Your task to perform on an android device: uninstall "Google Sheets" Image 0: 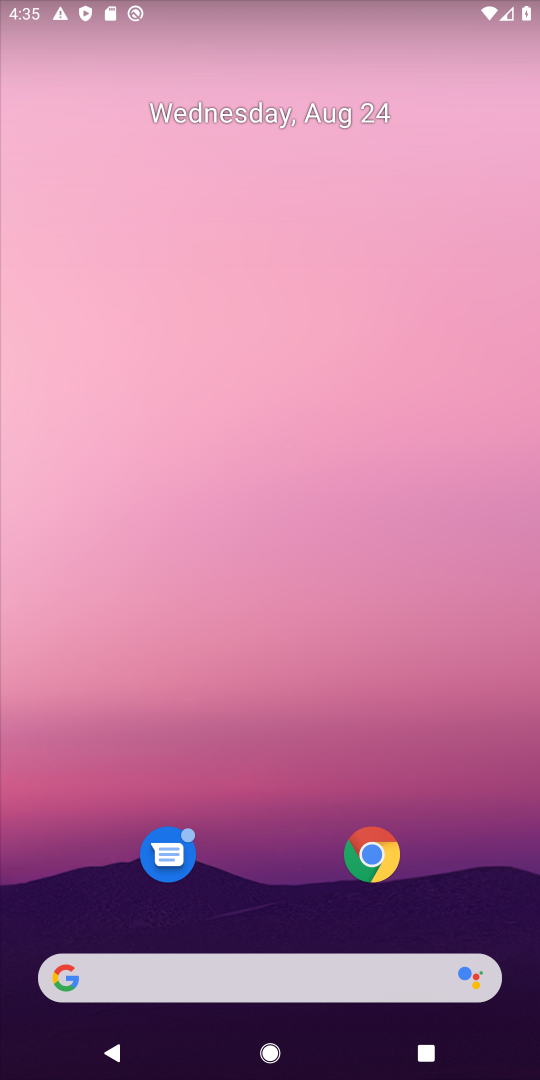
Step 0: drag from (274, 835) to (246, 0)
Your task to perform on an android device: uninstall "Google Sheets" Image 1: 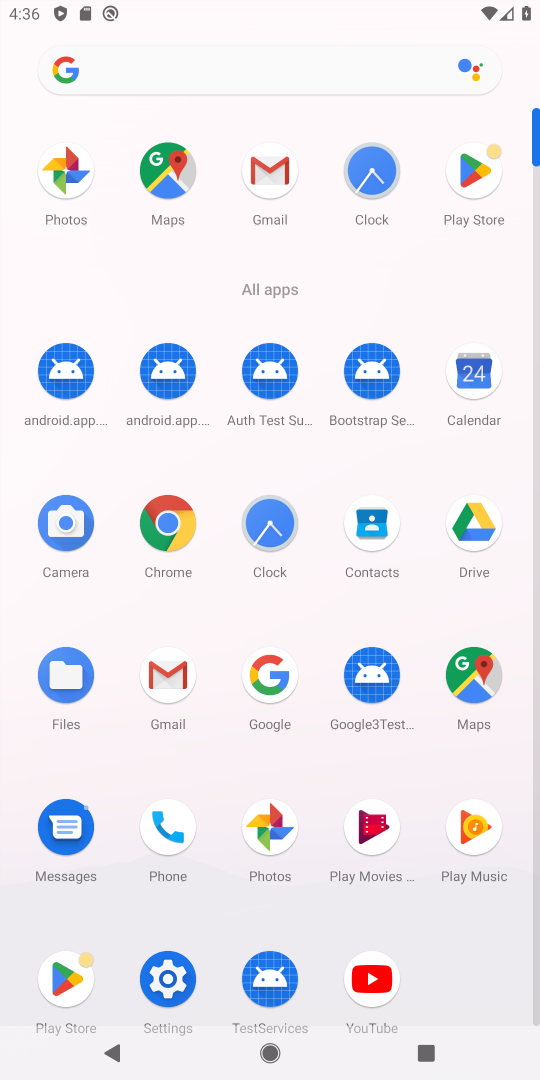
Step 1: click (464, 183)
Your task to perform on an android device: uninstall "Google Sheets" Image 2: 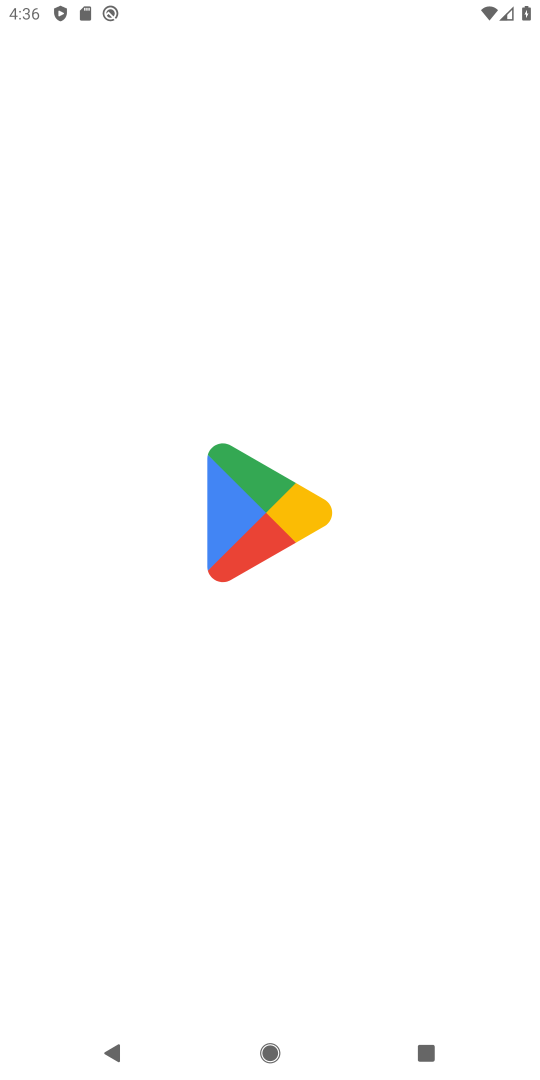
Step 2: task complete